Your task to perform on an android device: Go to accessibility settings Image 0: 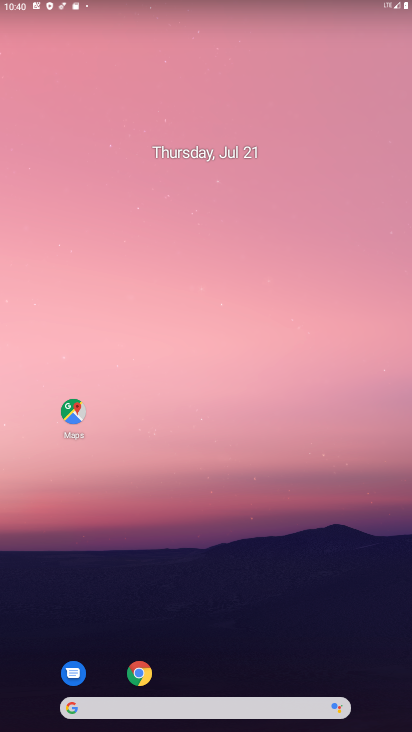
Step 0: drag from (256, 667) to (251, 211)
Your task to perform on an android device: Go to accessibility settings Image 1: 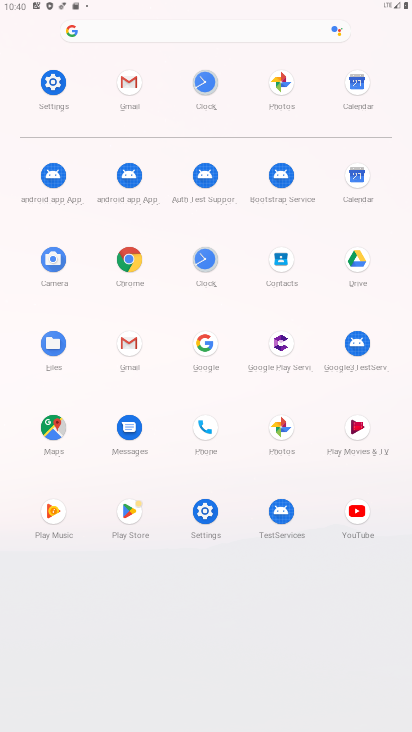
Step 1: click (48, 93)
Your task to perform on an android device: Go to accessibility settings Image 2: 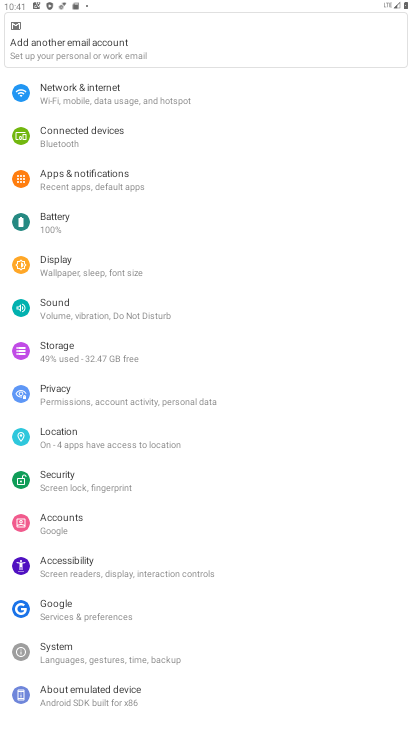
Step 2: click (100, 573)
Your task to perform on an android device: Go to accessibility settings Image 3: 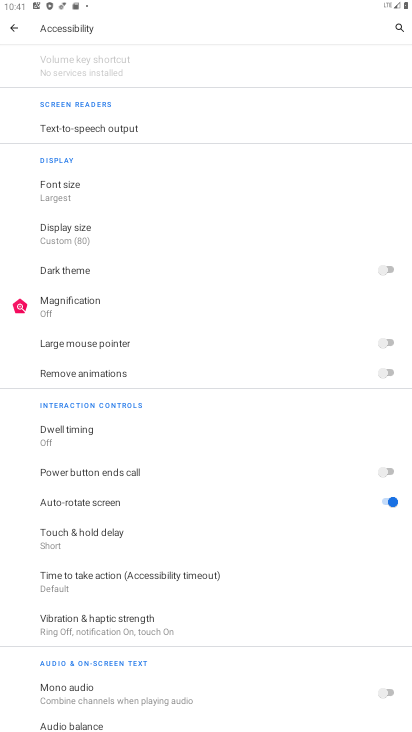
Step 3: task complete